Your task to perform on an android device: Open wifi settings Image 0: 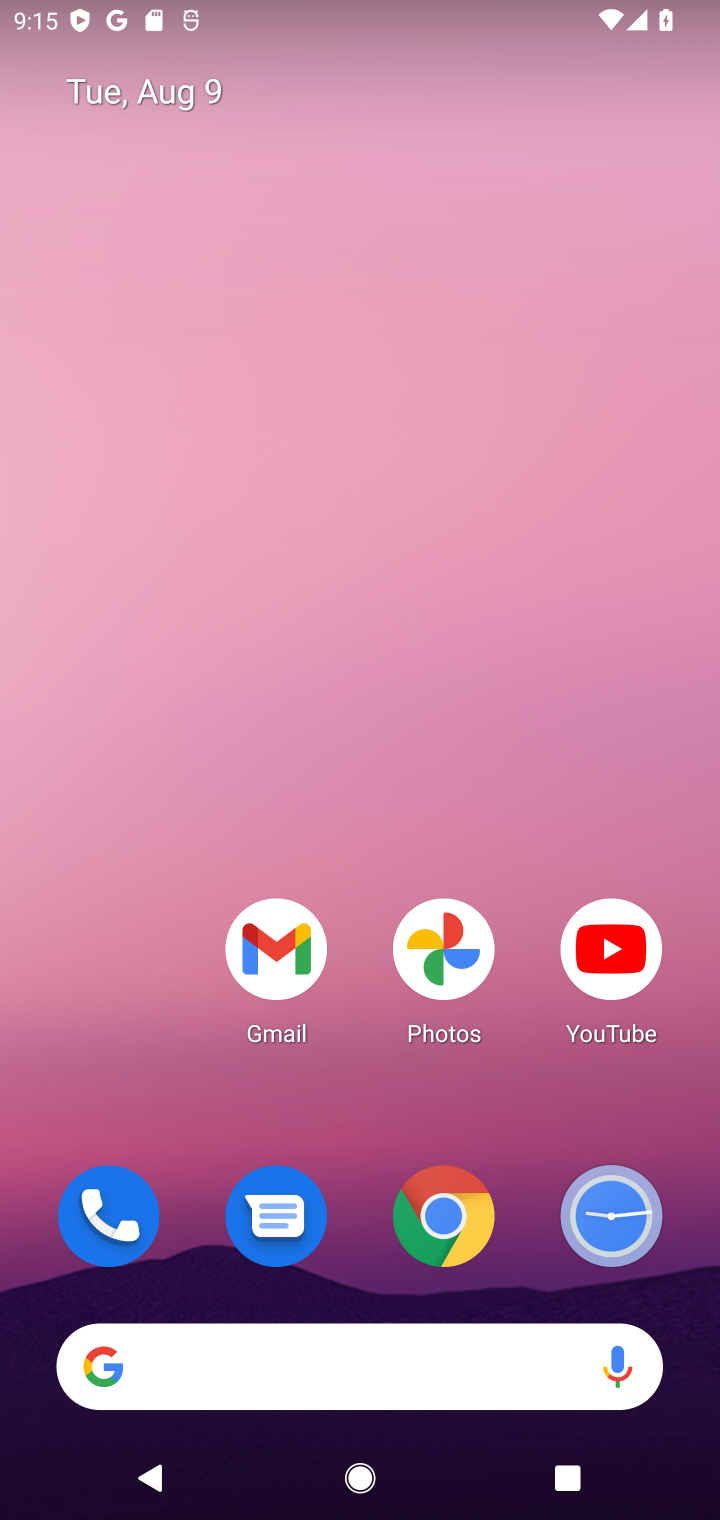
Step 0: drag from (325, 678) to (351, 350)
Your task to perform on an android device: Open wifi settings Image 1: 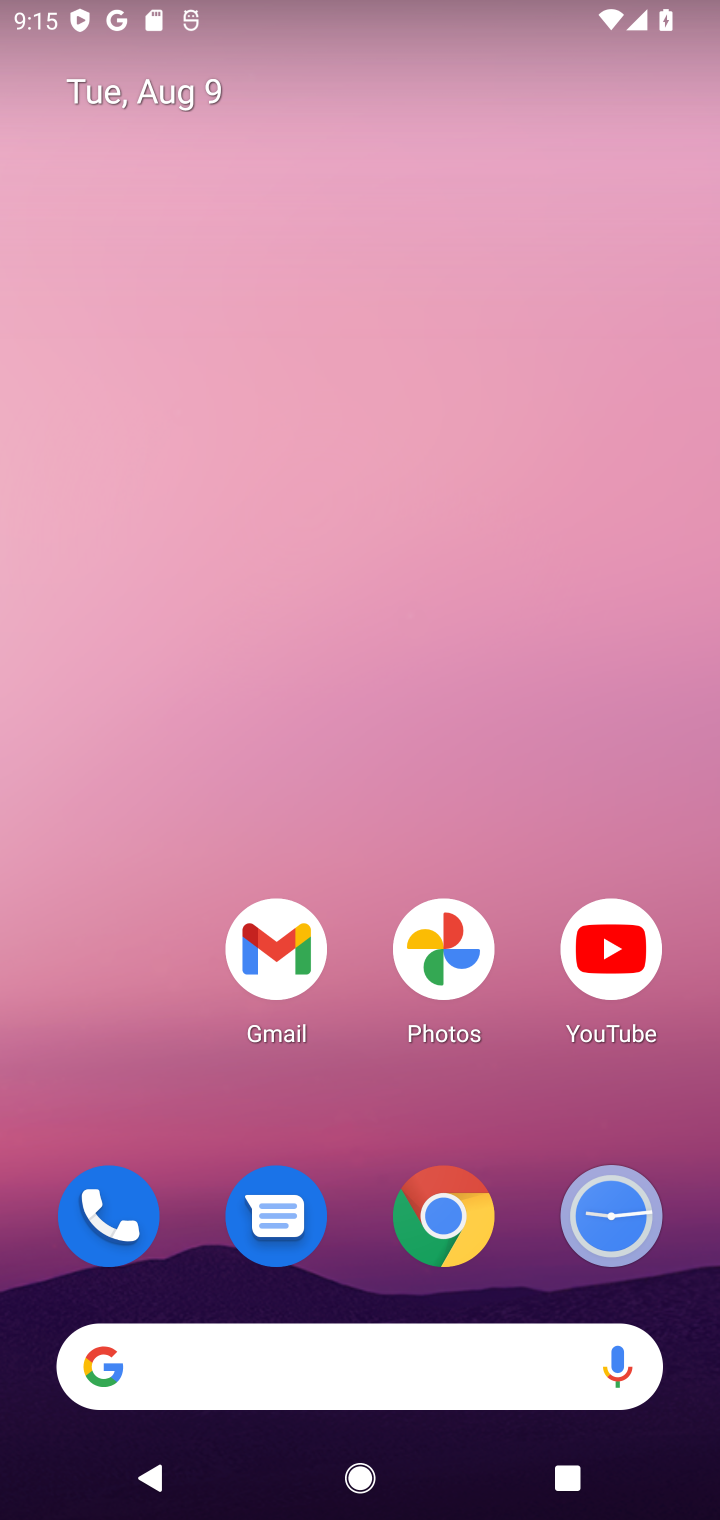
Step 1: drag from (317, 950) to (317, 465)
Your task to perform on an android device: Open wifi settings Image 2: 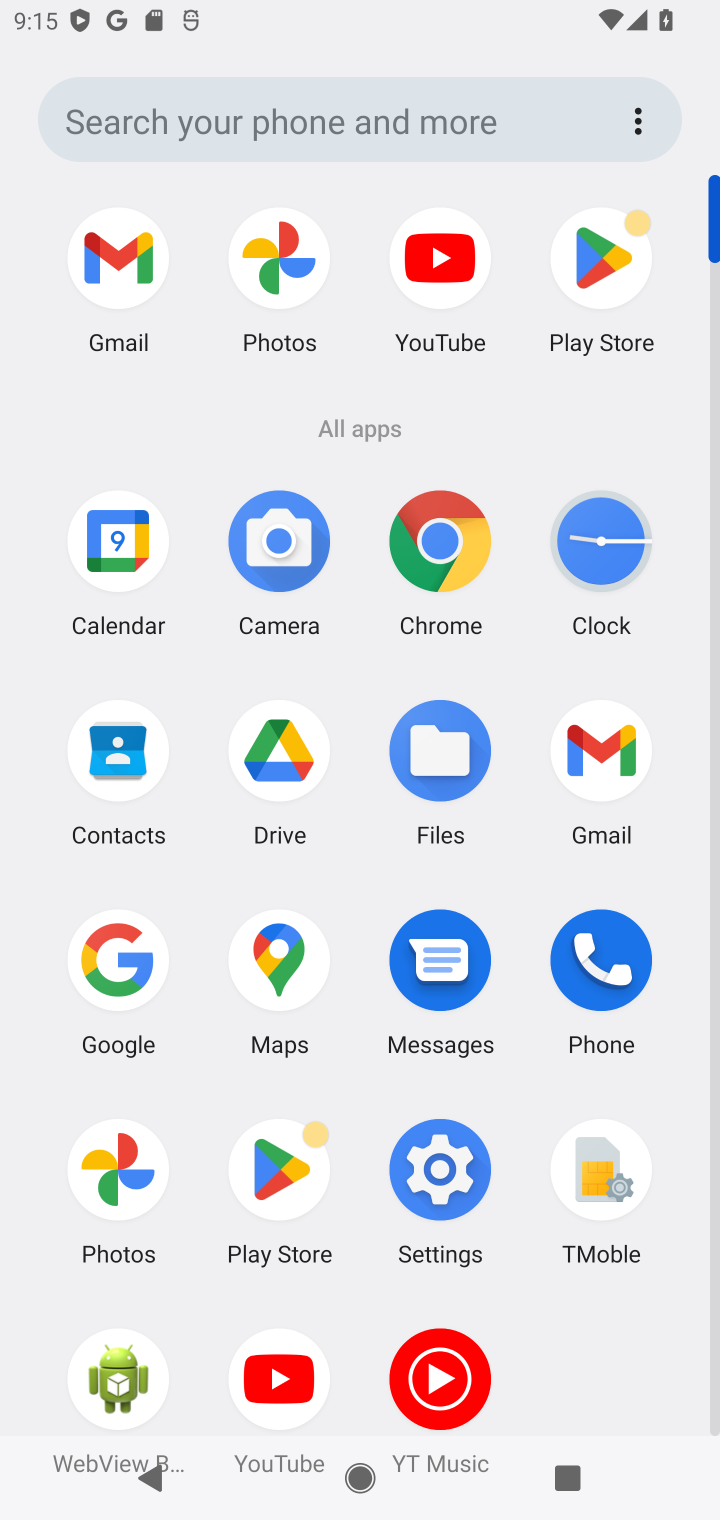
Step 2: click (418, 1195)
Your task to perform on an android device: Open wifi settings Image 3: 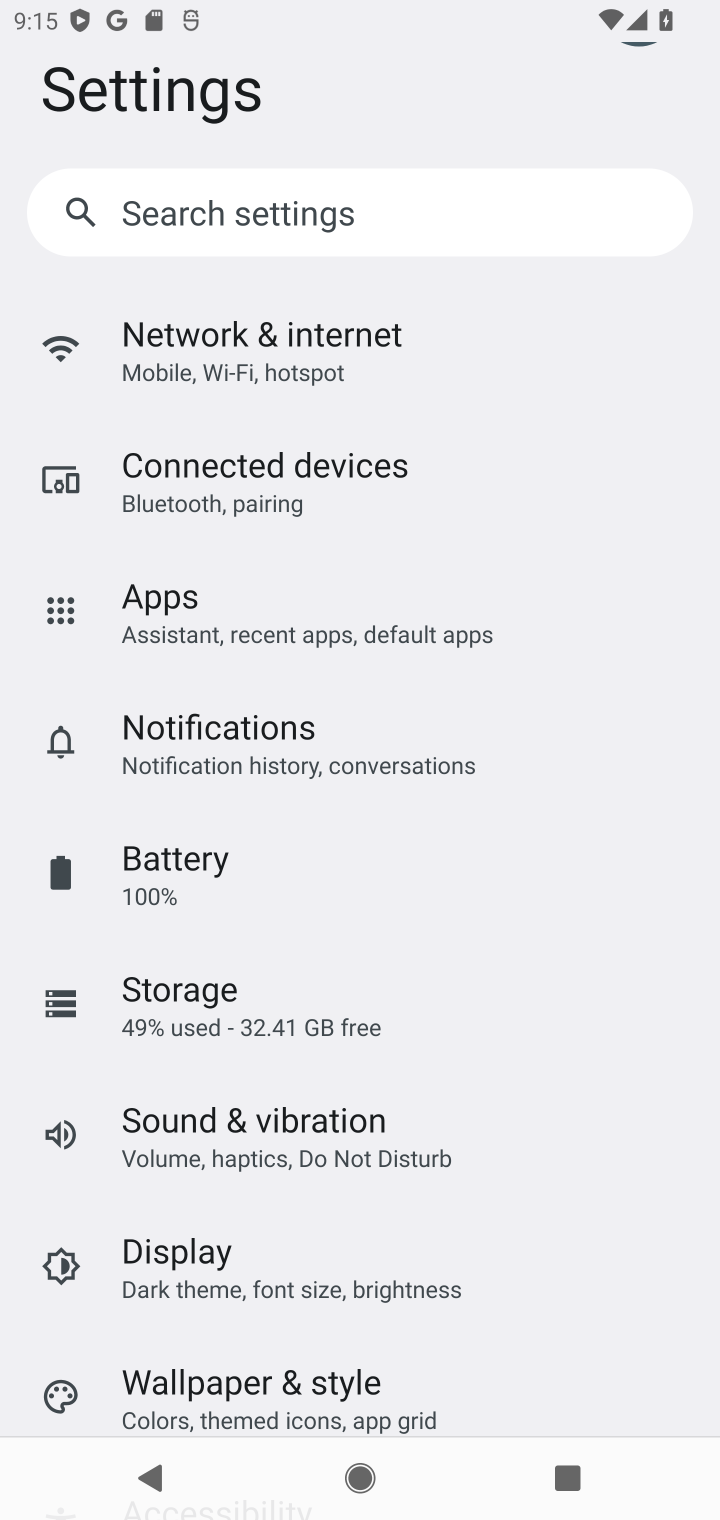
Step 3: click (241, 359)
Your task to perform on an android device: Open wifi settings Image 4: 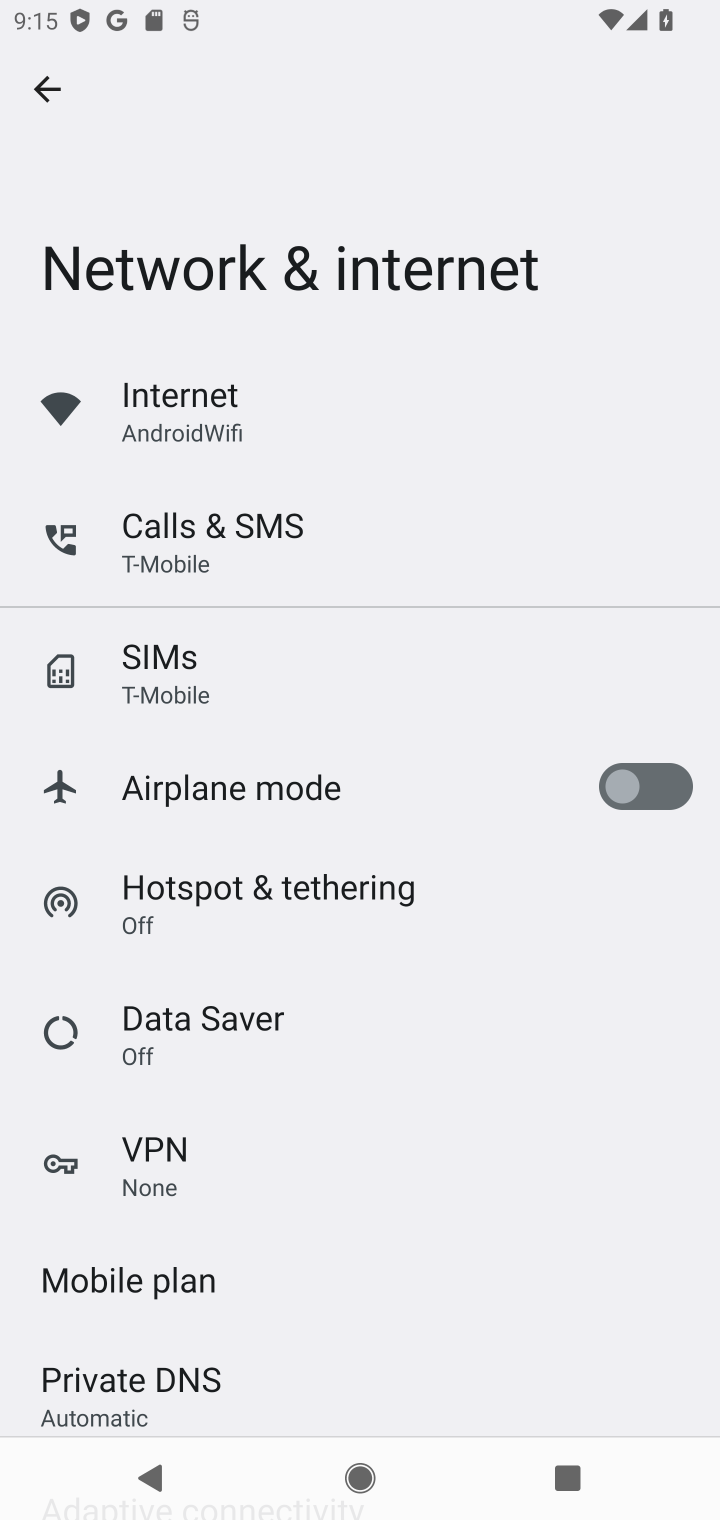
Step 4: drag from (188, 1388) to (172, 833)
Your task to perform on an android device: Open wifi settings Image 5: 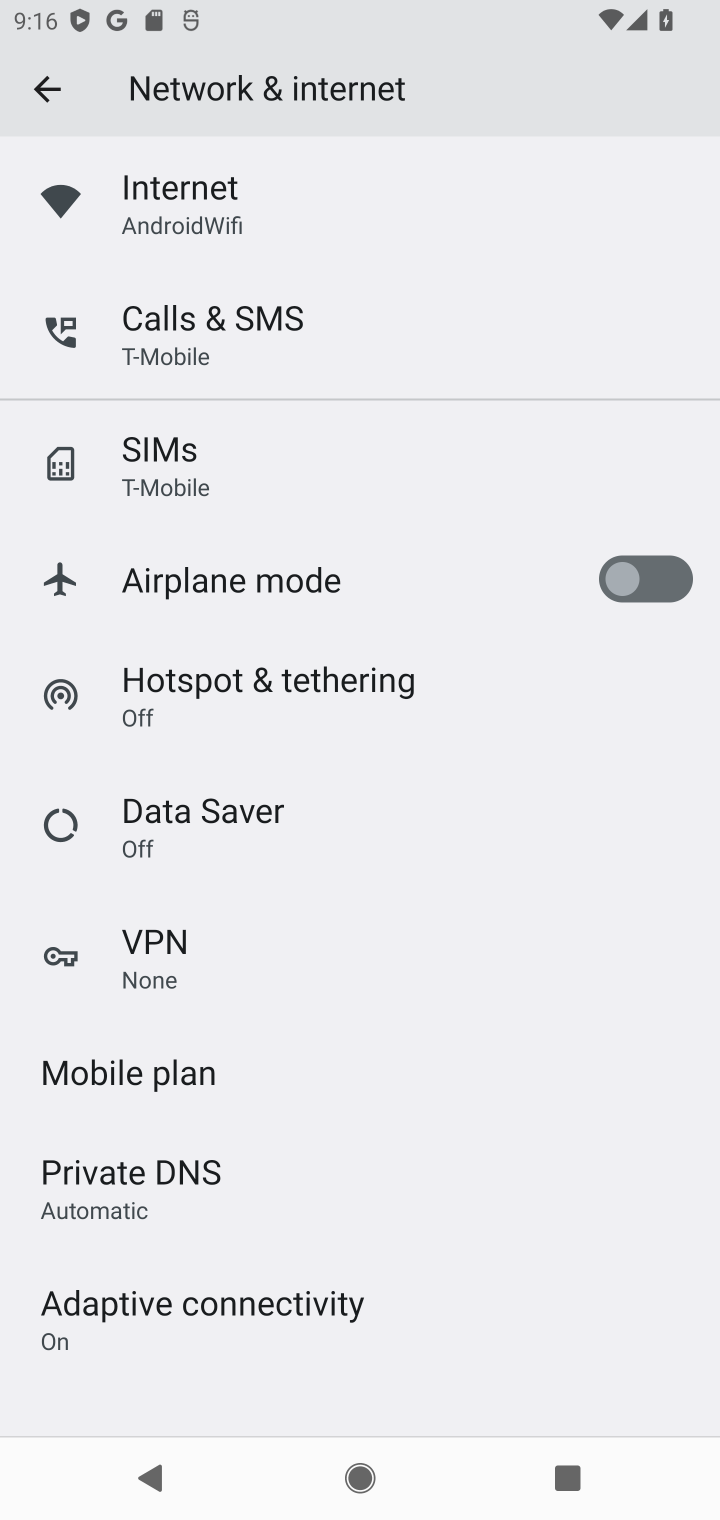
Step 5: drag from (385, 290) to (262, 1237)
Your task to perform on an android device: Open wifi settings Image 6: 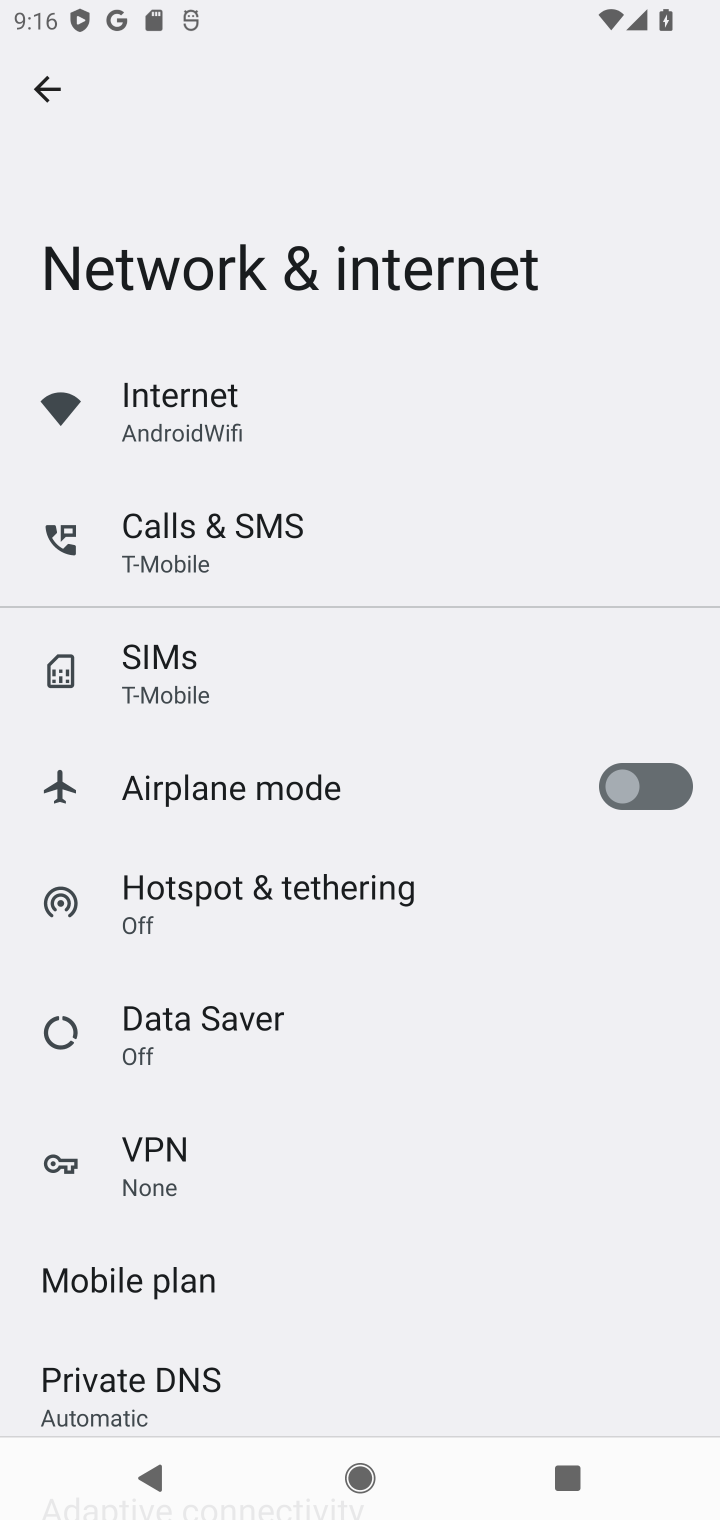
Step 6: click (31, 85)
Your task to perform on an android device: Open wifi settings Image 7: 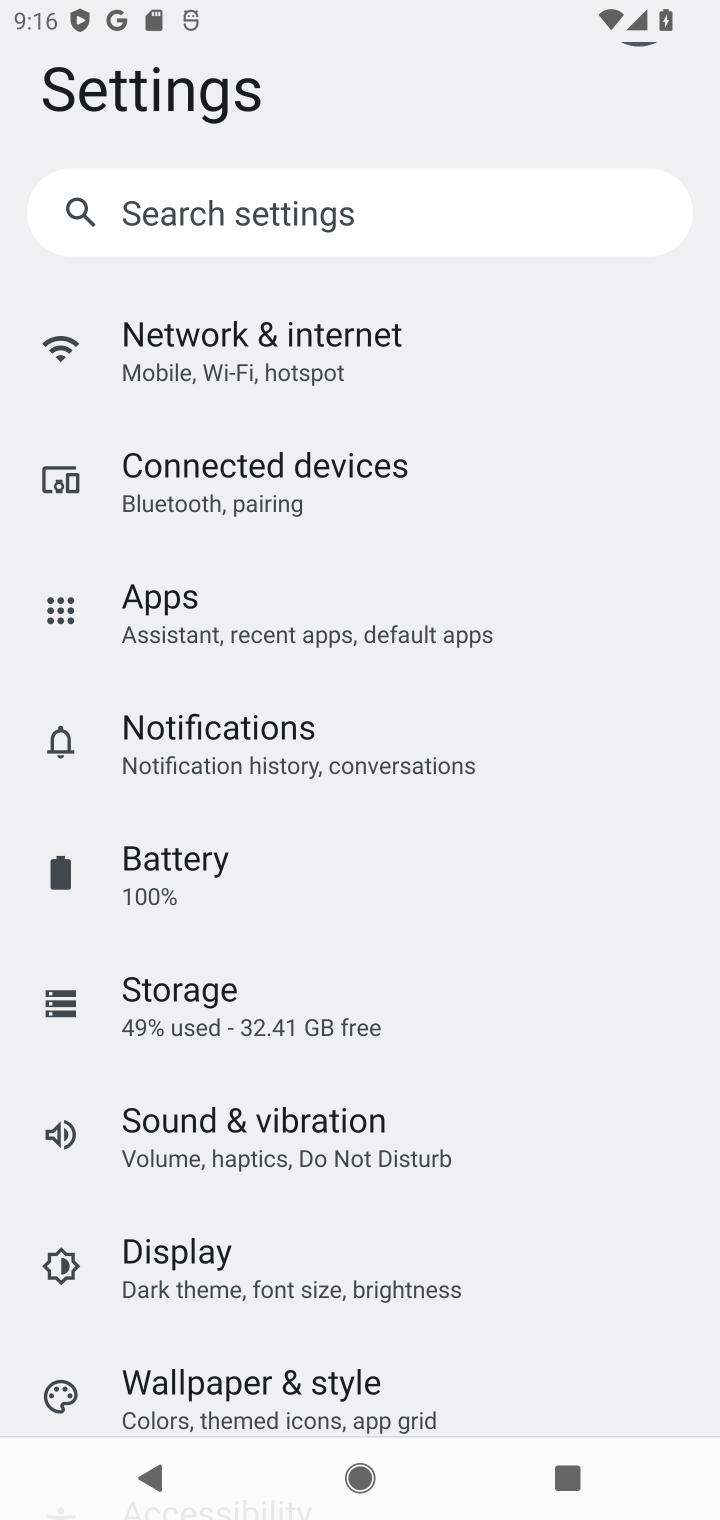
Step 7: click (219, 371)
Your task to perform on an android device: Open wifi settings Image 8: 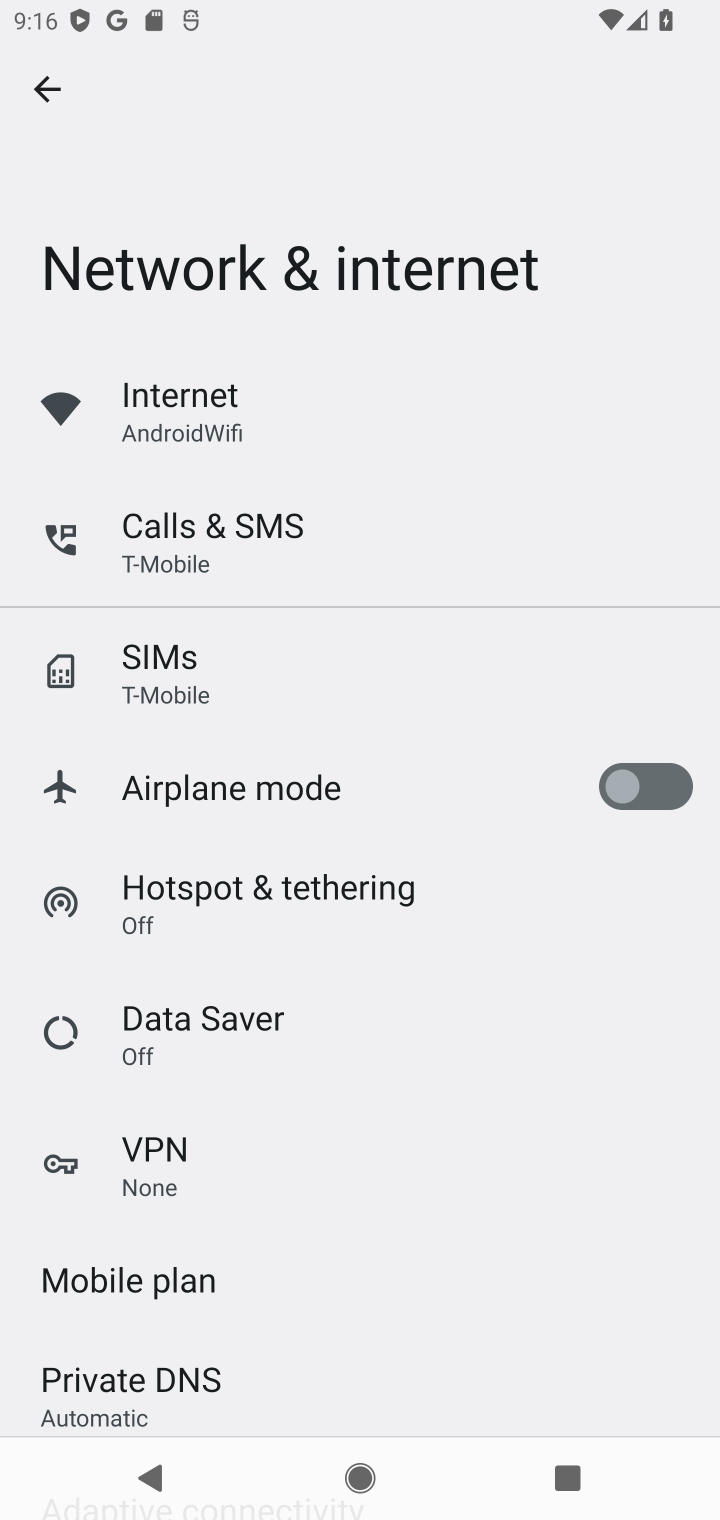
Step 8: click (163, 410)
Your task to perform on an android device: Open wifi settings Image 9: 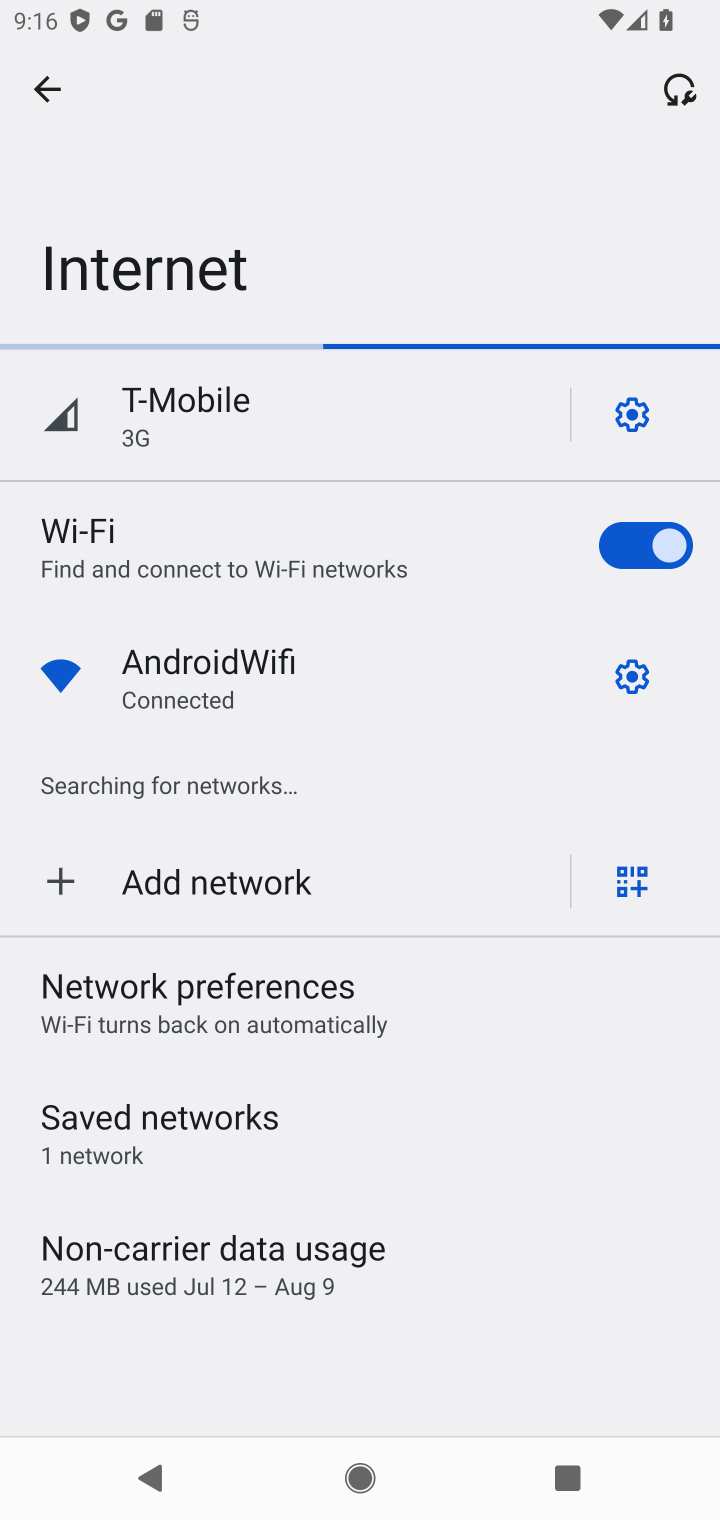
Step 9: click (644, 417)
Your task to perform on an android device: Open wifi settings Image 10: 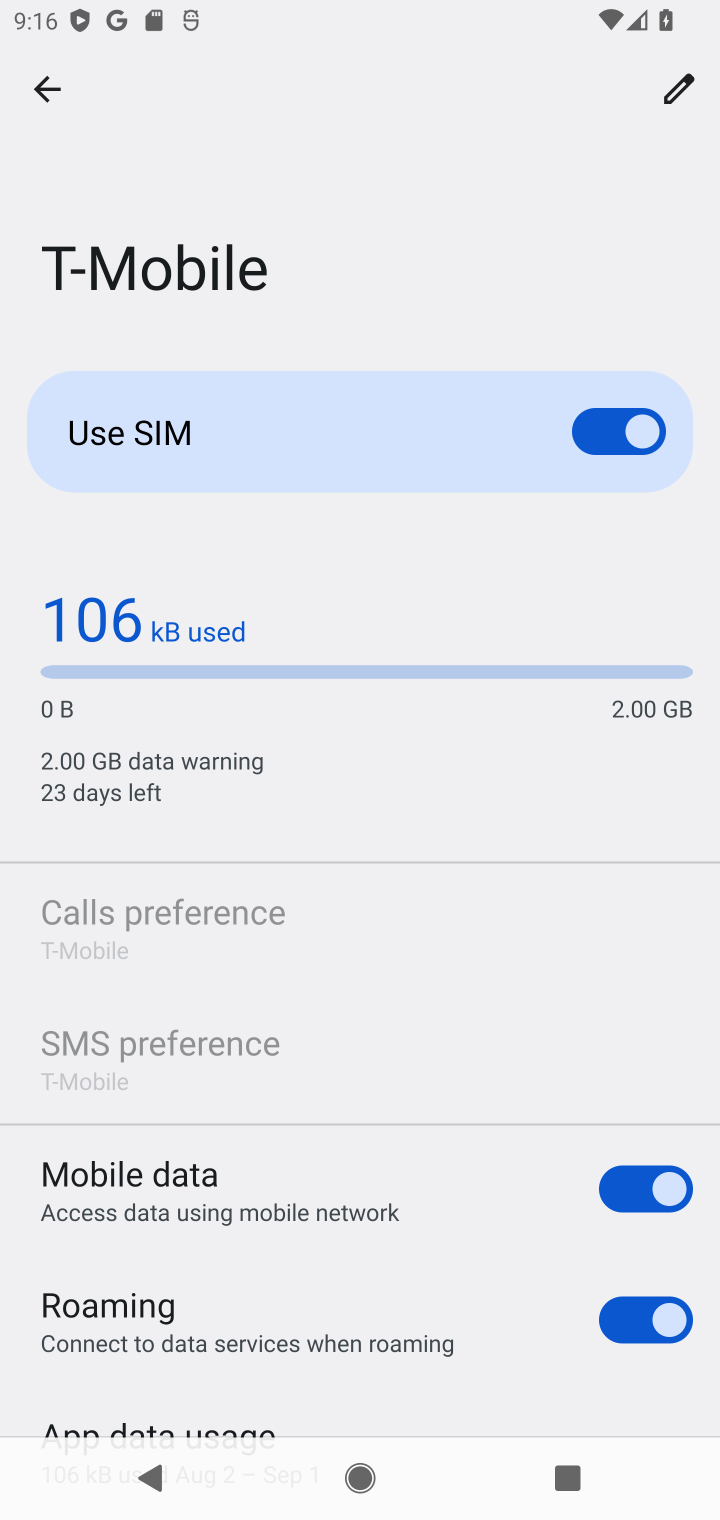
Step 10: task complete